Your task to perform on an android device: Go to Android settings Image 0: 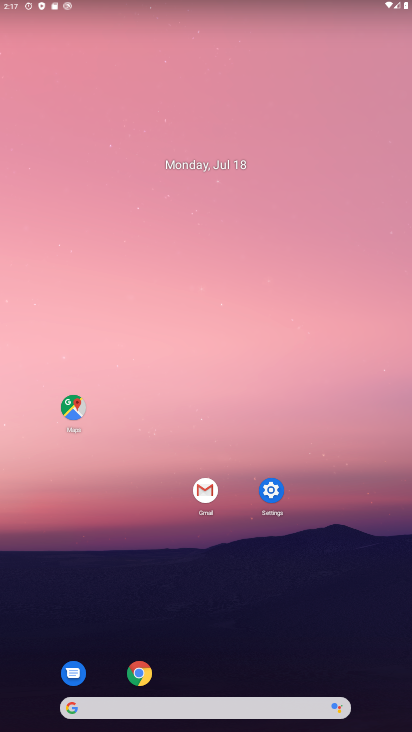
Step 0: click (272, 503)
Your task to perform on an android device: Go to Android settings Image 1: 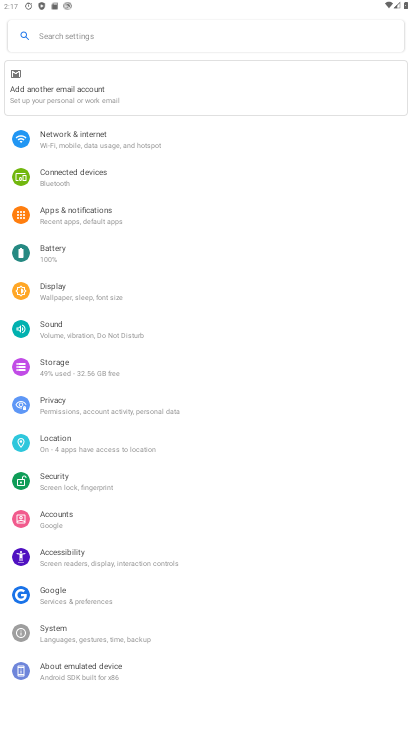
Step 1: click (75, 35)
Your task to perform on an android device: Go to Android settings Image 2: 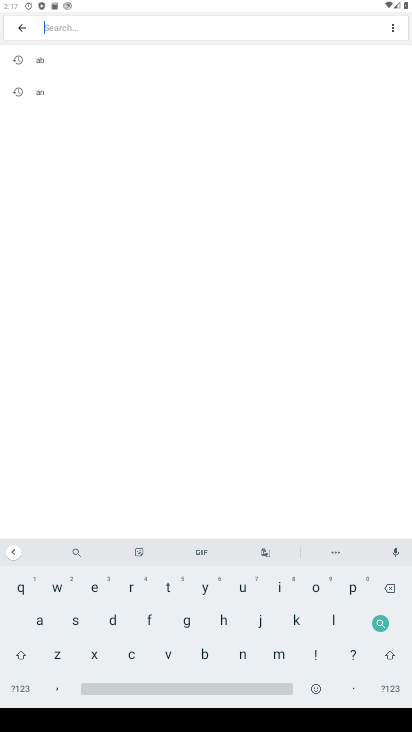
Step 2: click (37, 619)
Your task to perform on an android device: Go to Android settings Image 3: 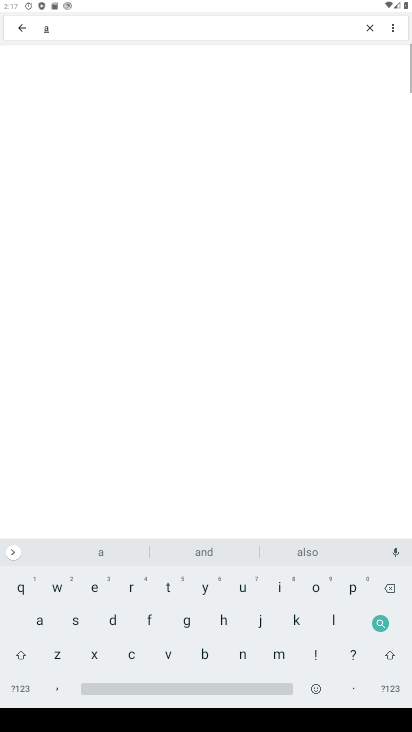
Step 3: click (245, 676)
Your task to perform on an android device: Go to Android settings Image 4: 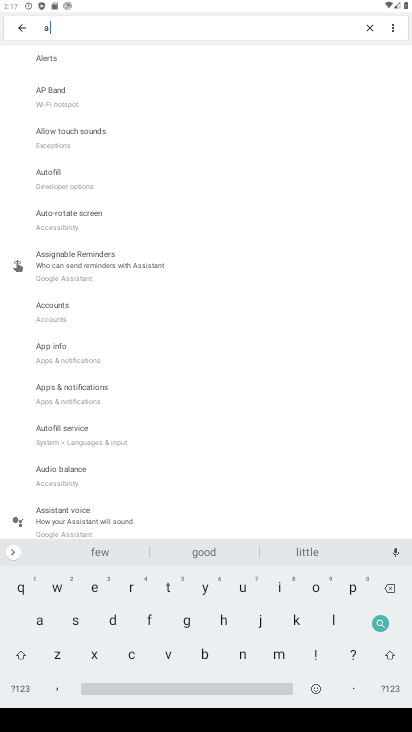
Step 4: click (239, 651)
Your task to perform on an android device: Go to Android settings Image 5: 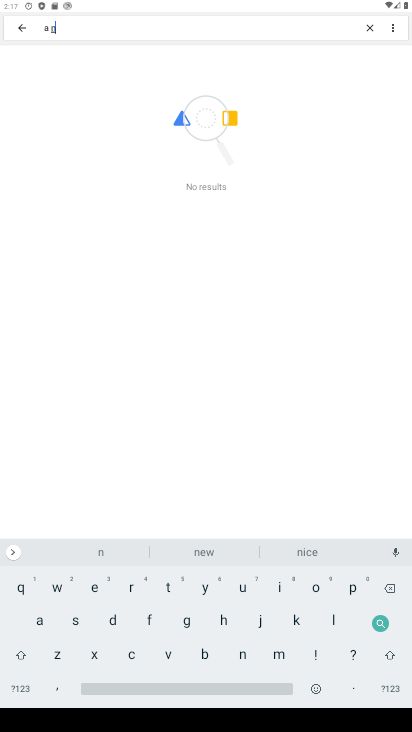
Step 5: click (386, 594)
Your task to perform on an android device: Go to Android settings Image 6: 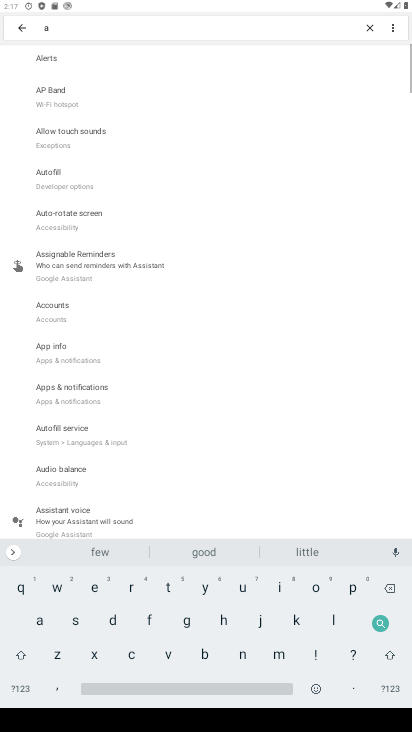
Step 6: click (386, 594)
Your task to perform on an android device: Go to Android settings Image 7: 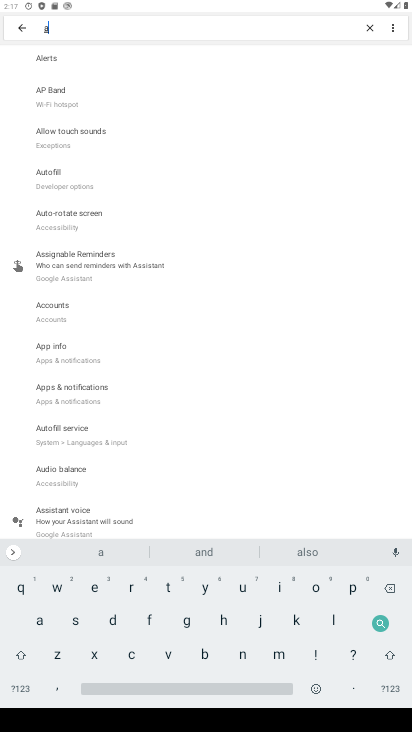
Step 7: click (238, 656)
Your task to perform on an android device: Go to Android settings Image 8: 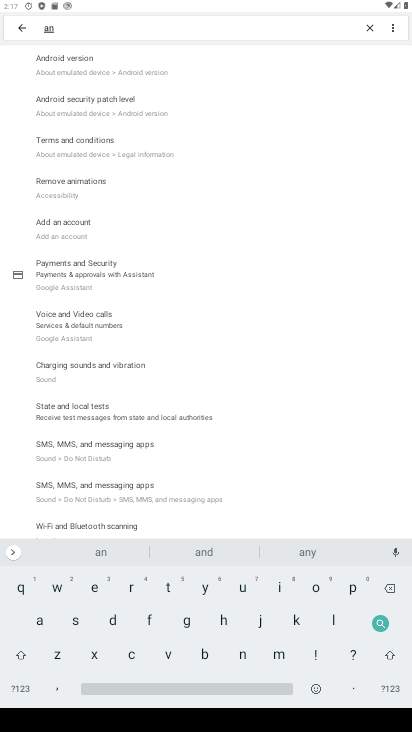
Step 8: click (94, 67)
Your task to perform on an android device: Go to Android settings Image 9: 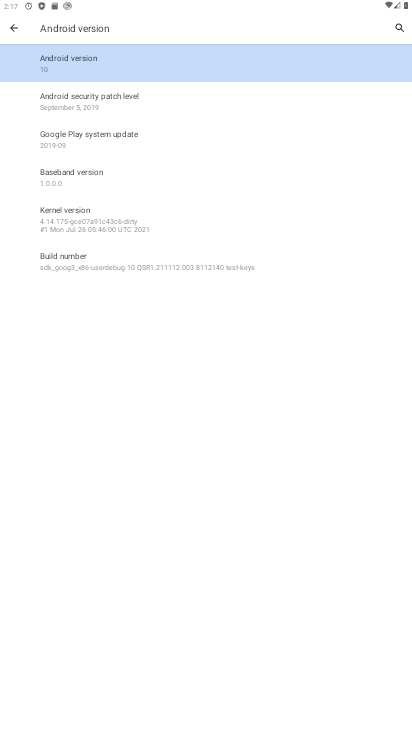
Step 9: task complete